Your task to perform on an android device: Open Wikipedia Image 0: 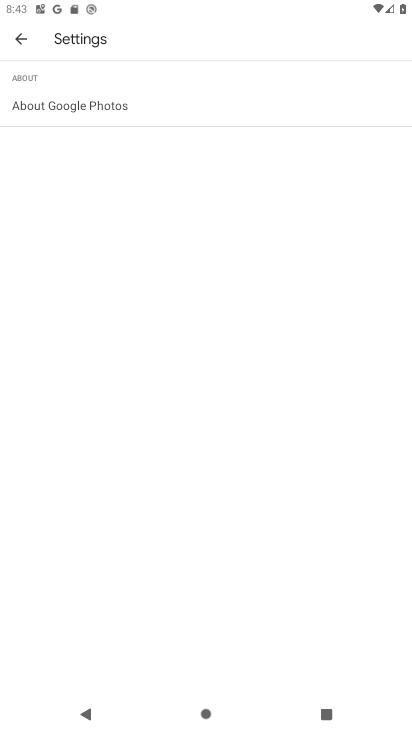
Step 0: press home button
Your task to perform on an android device: Open Wikipedia Image 1: 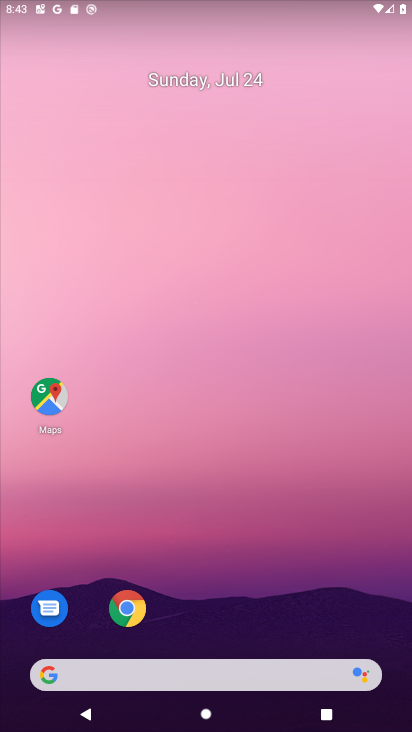
Step 1: click (134, 603)
Your task to perform on an android device: Open Wikipedia Image 2: 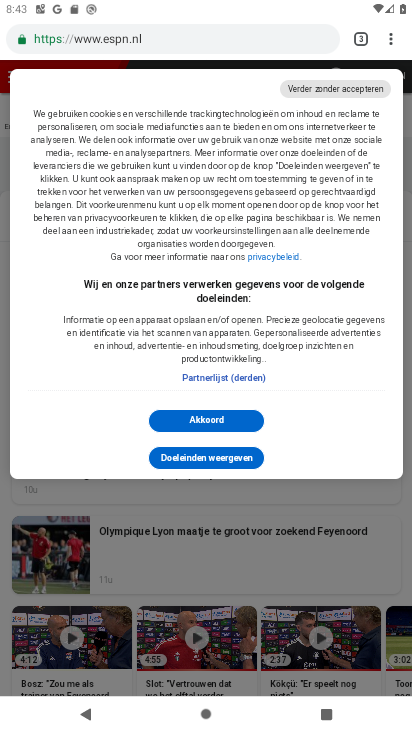
Step 2: click (364, 31)
Your task to perform on an android device: Open Wikipedia Image 3: 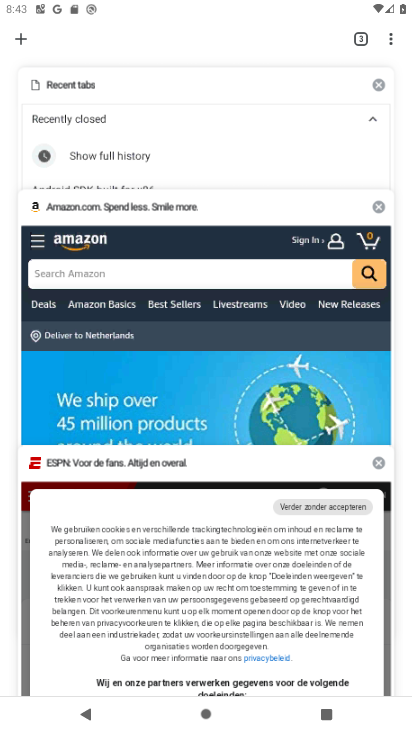
Step 3: click (14, 32)
Your task to perform on an android device: Open Wikipedia Image 4: 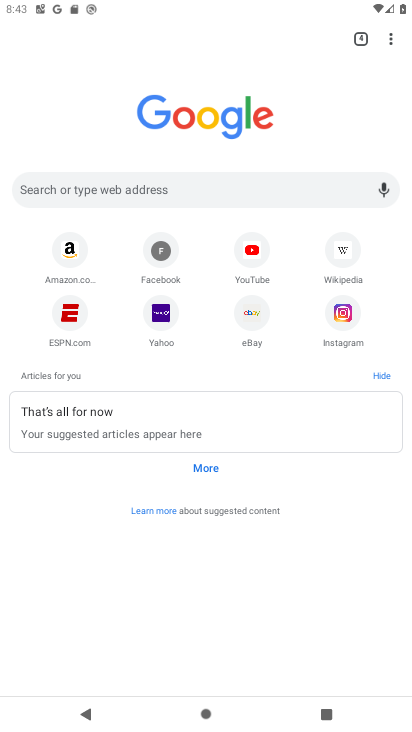
Step 4: click (343, 267)
Your task to perform on an android device: Open Wikipedia Image 5: 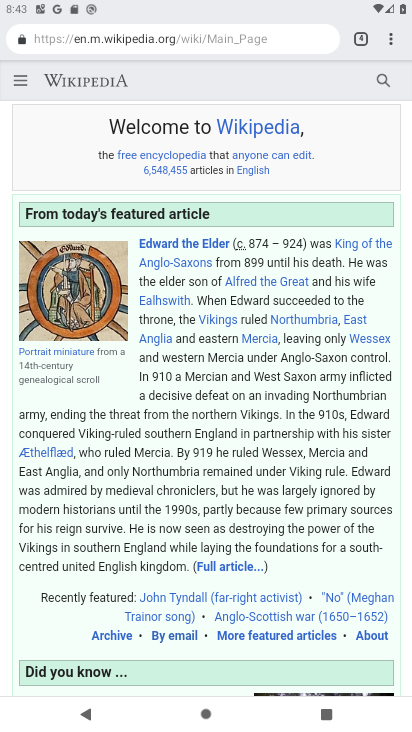
Step 5: task complete